Your task to perform on an android device: Toggle the flashlight Image 0: 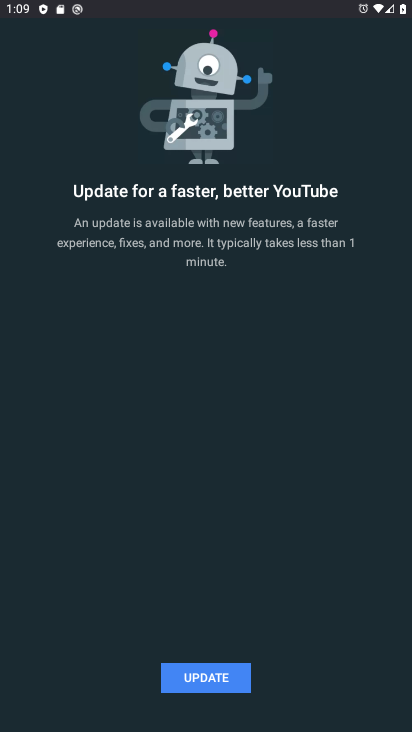
Step 0: press back button
Your task to perform on an android device: Toggle the flashlight Image 1: 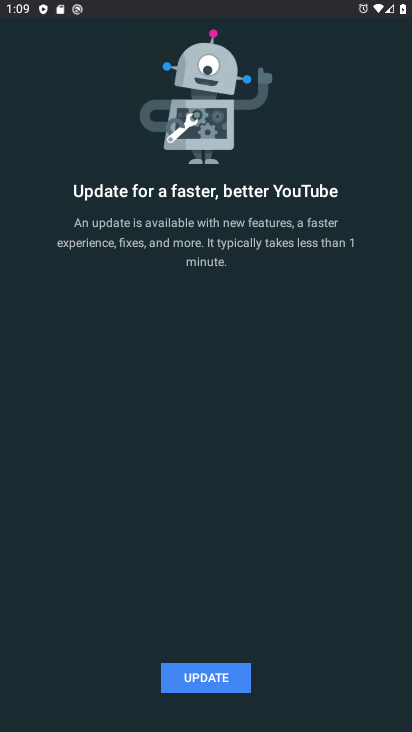
Step 1: task complete